Your task to perform on an android device: turn on sleep mode Image 0: 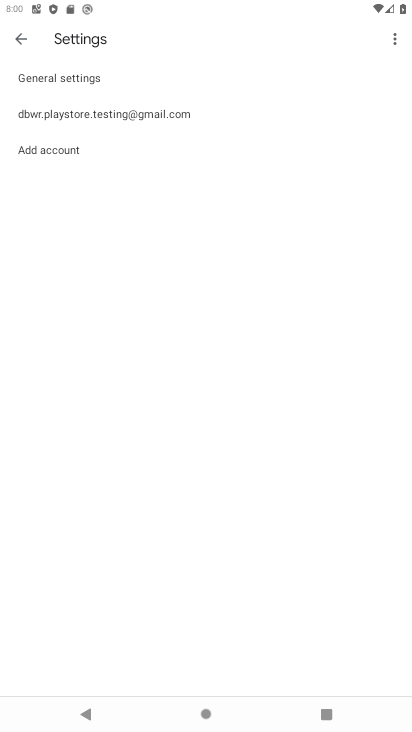
Step 0: press back button
Your task to perform on an android device: turn on sleep mode Image 1: 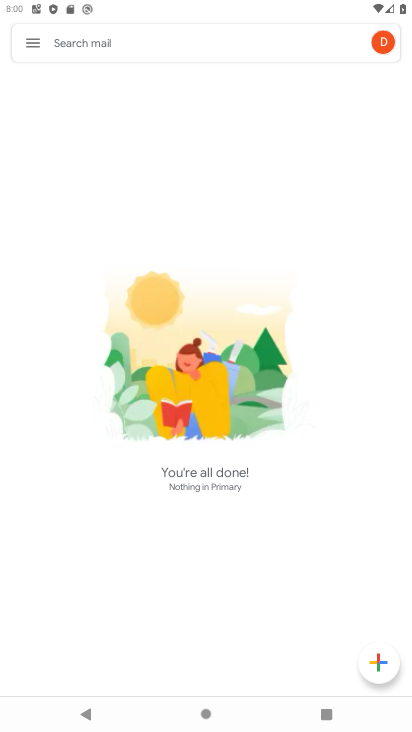
Step 1: press home button
Your task to perform on an android device: turn on sleep mode Image 2: 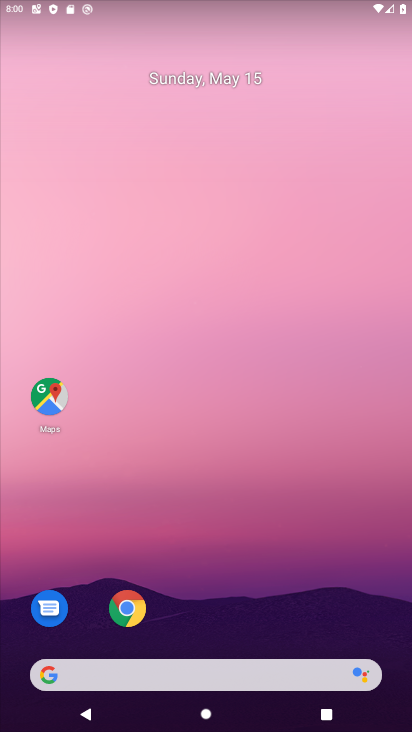
Step 2: drag from (291, 587) to (113, 46)
Your task to perform on an android device: turn on sleep mode Image 3: 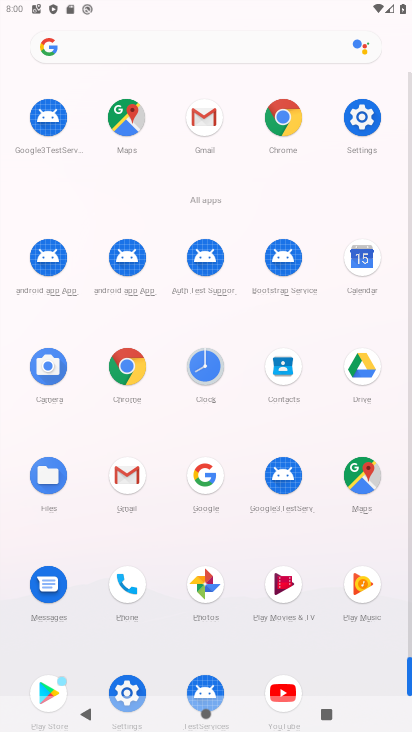
Step 3: click (354, 126)
Your task to perform on an android device: turn on sleep mode Image 4: 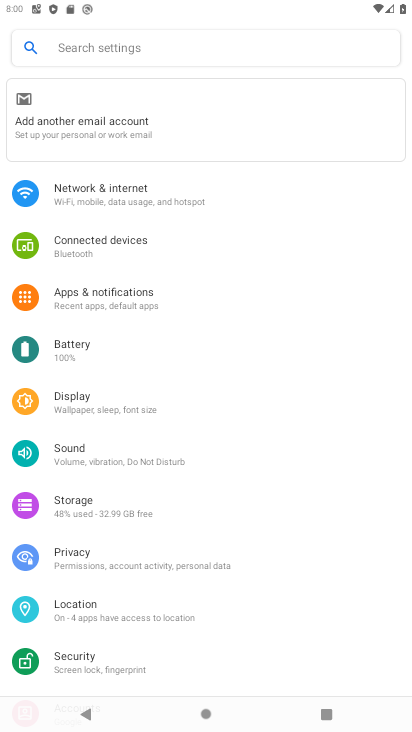
Step 4: click (66, 400)
Your task to perform on an android device: turn on sleep mode Image 5: 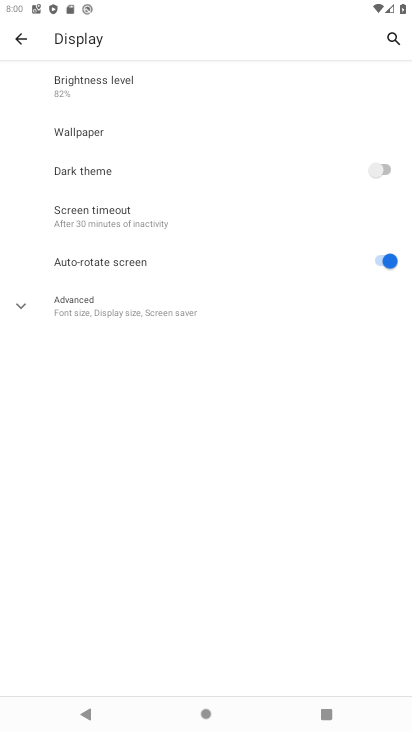
Step 5: task complete